Your task to perform on an android device: Search for vegetarian restaurants on Maps Image 0: 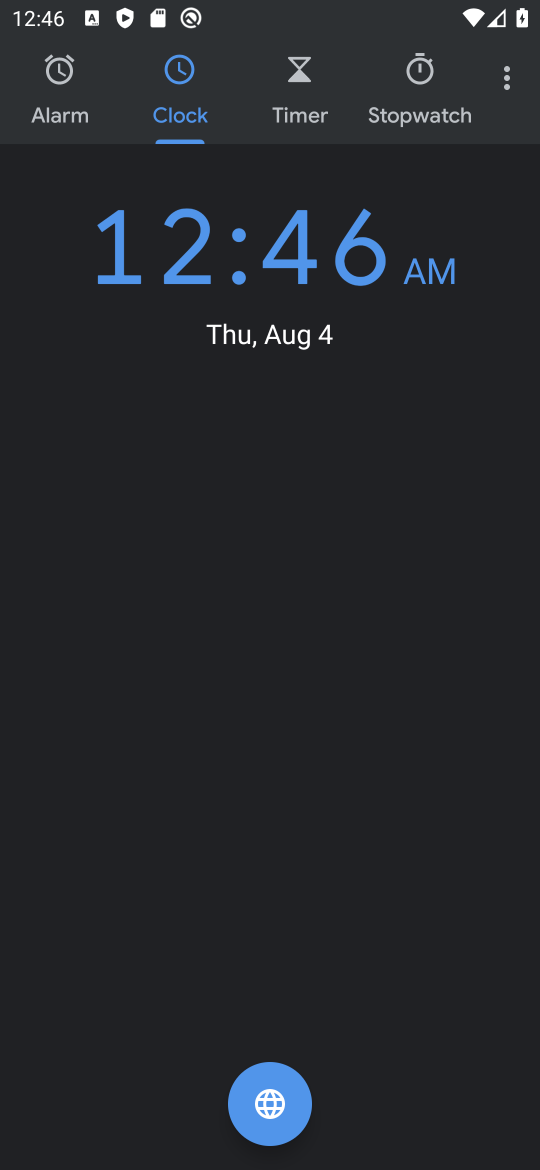
Step 0: press home button
Your task to perform on an android device: Search for vegetarian restaurants on Maps Image 1: 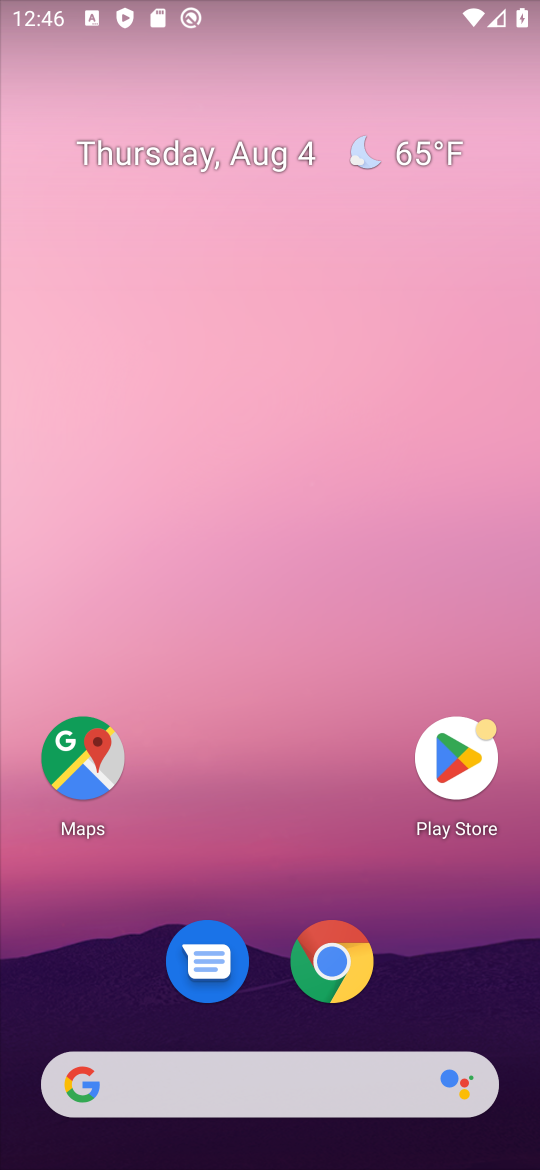
Step 1: click (89, 764)
Your task to perform on an android device: Search for vegetarian restaurants on Maps Image 2: 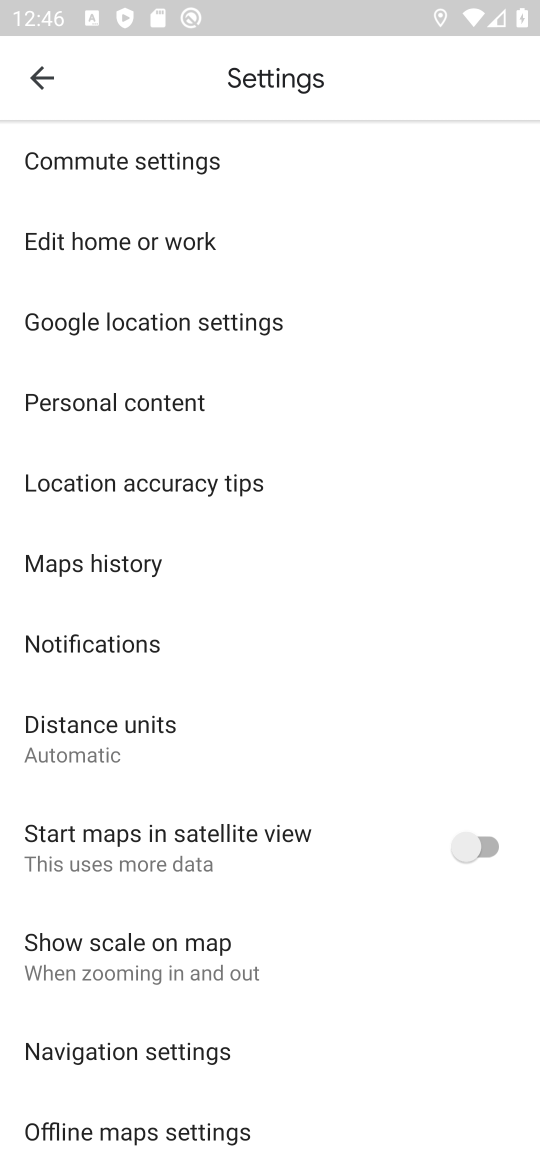
Step 2: click (37, 66)
Your task to perform on an android device: Search for vegetarian restaurants on Maps Image 3: 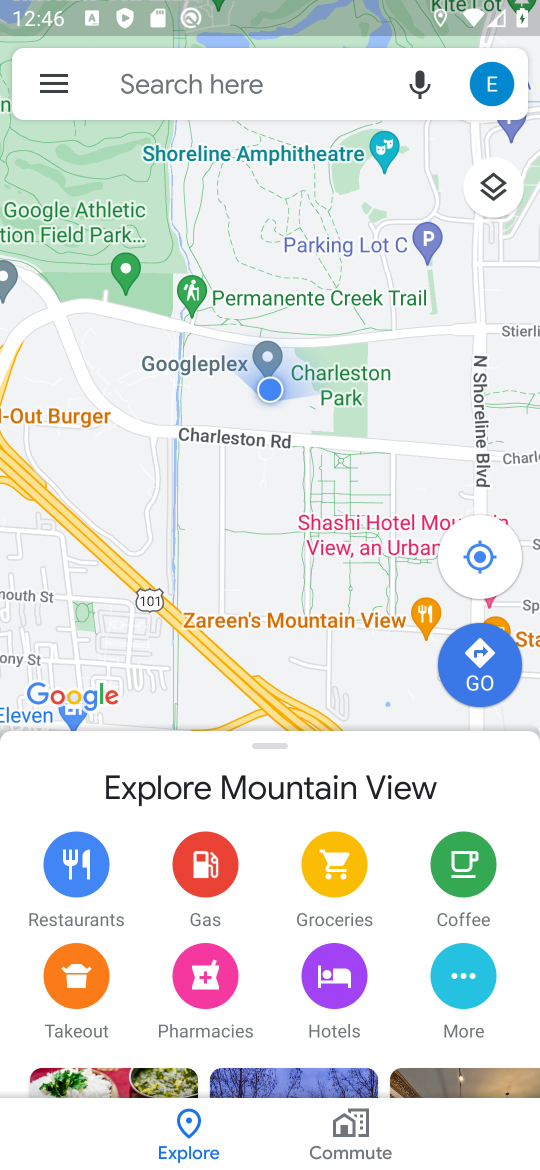
Step 3: click (125, 64)
Your task to perform on an android device: Search for vegetarian restaurants on Maps Image 4: 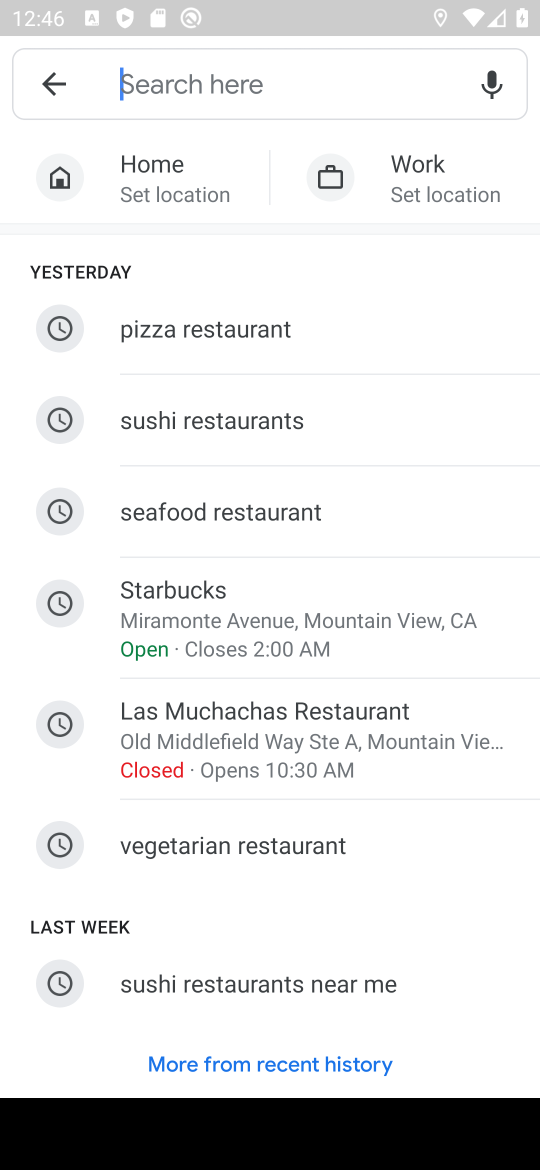
Step 4: click (245, 857)
Your task to perform on an android device: Search for vegetarian restaurants on Maps Image 5: 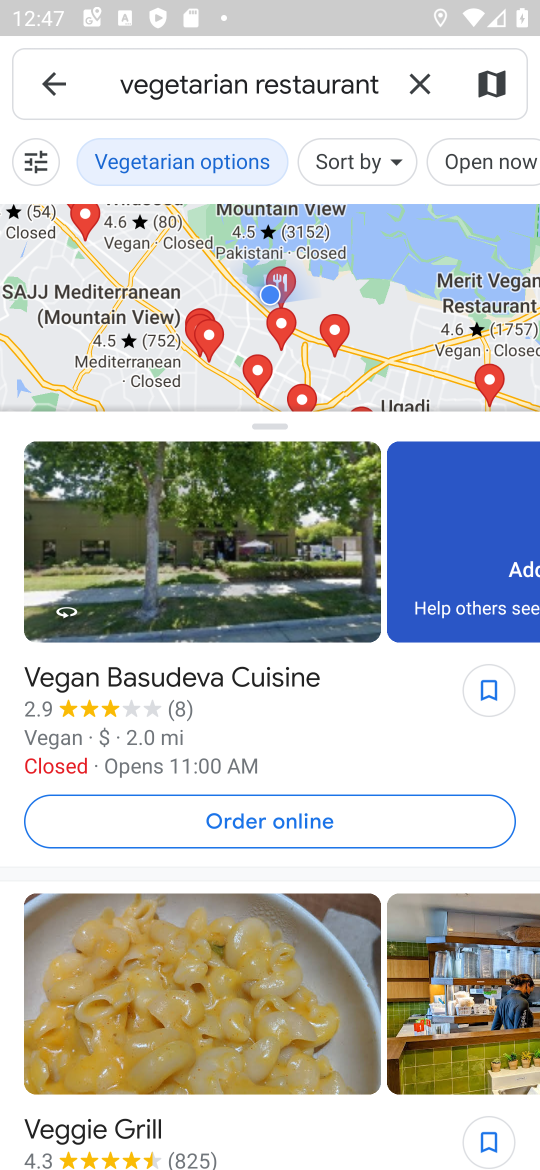
Step 5: task complete